Your task to perform on an android device: turn off airplane mode Image 0: 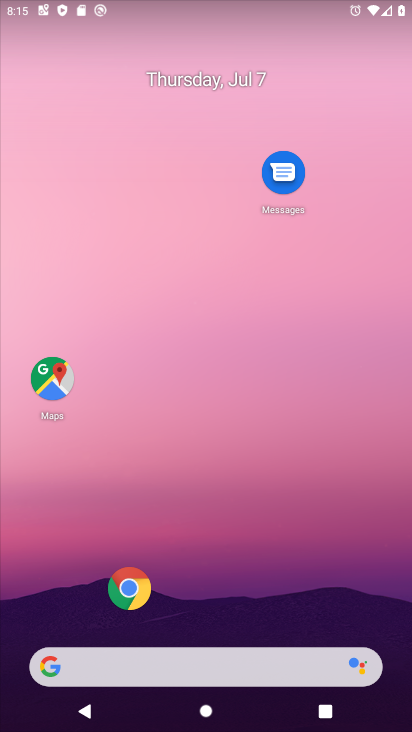
Step 0: drag from (37, 711) to (321, 73)
Your task to perform on an android device: turn off airplane mode Image 1: 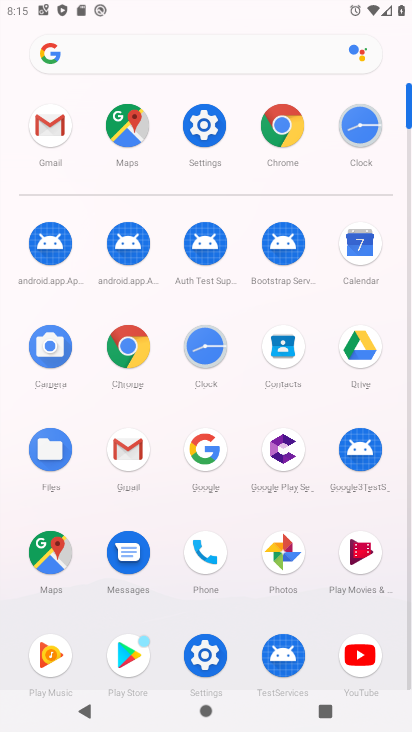
Step 1: click (203, 653)
Your task to perform on an android device: turn off airplane mode Image 2: 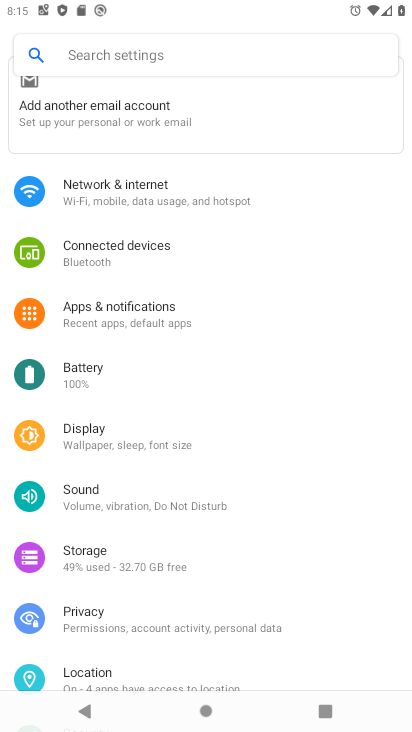
Step 2: click (155, 196)
Your task to perform on an android device: turn off airplane mode Image 3: 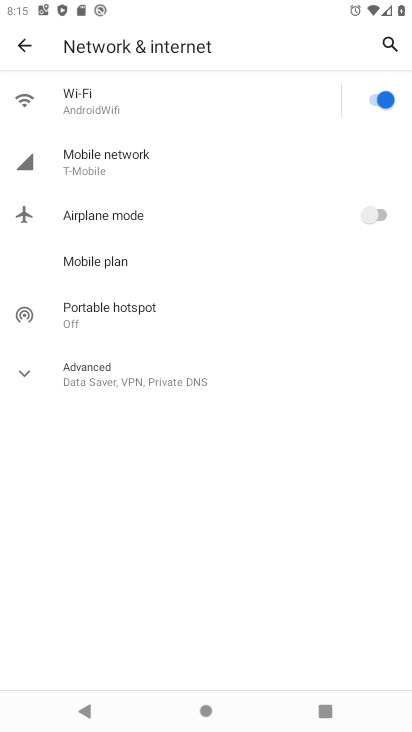
Step 3: click (376, 215)
Your task to perform on an android device: turn off airplane mode Image 4: 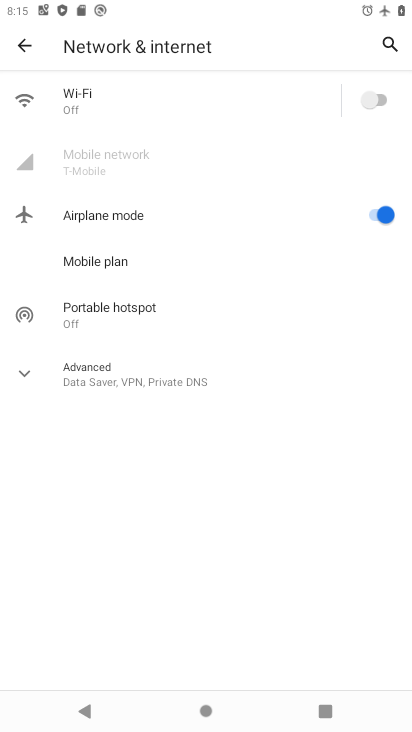
Step 4: task complete